Your task to perform on an android device: open a bookmark in the chrome app Image 0: 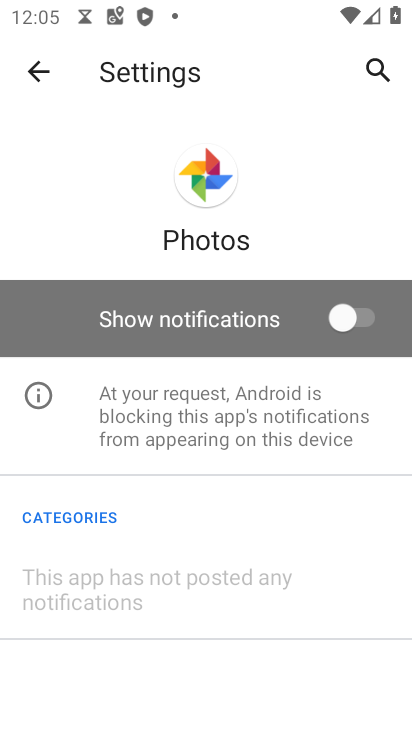
Step 0: press home button
Your task to perform on an android device: open a bookmark in the chrome app Image 1: 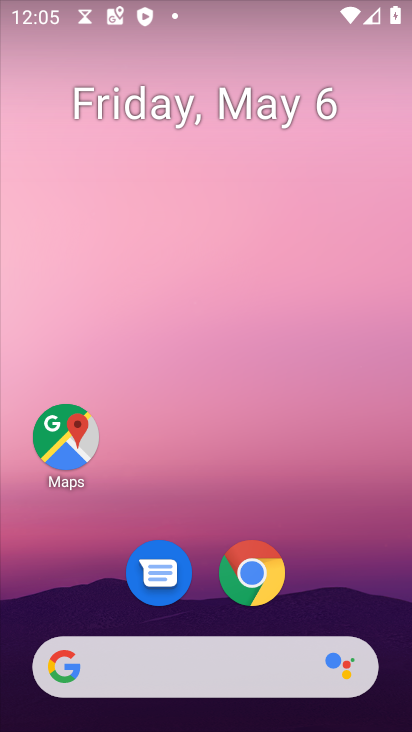
Step 1: drag from (328, 566) to (319, 293)
Your task to perform on an android device: open a bookmark in the chrome app Image 2: 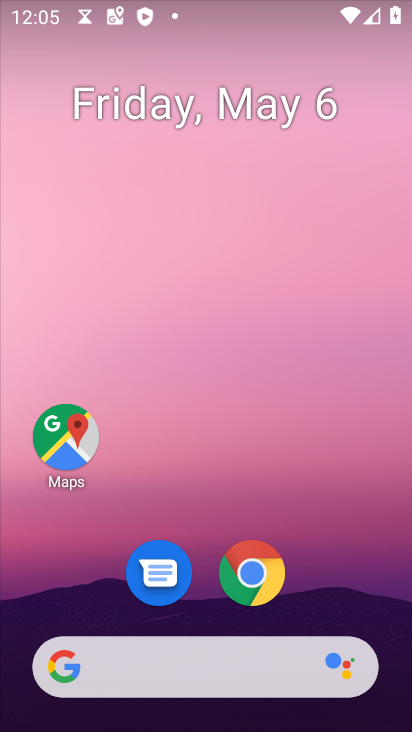
Step 2: drag from (334, 607) to (335, 301)
Your task to perform on an android device: open a bookmark in the chrome app Image 3: 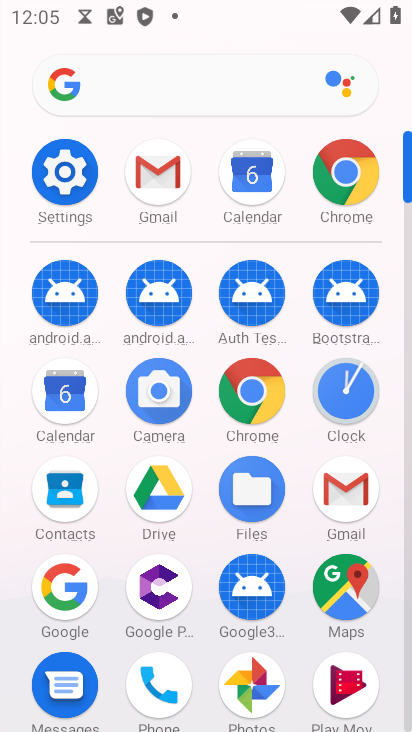
Step 3: click (239, 392)
Your task to perform on an android device: open a bookmark in the chrome app Image 4: 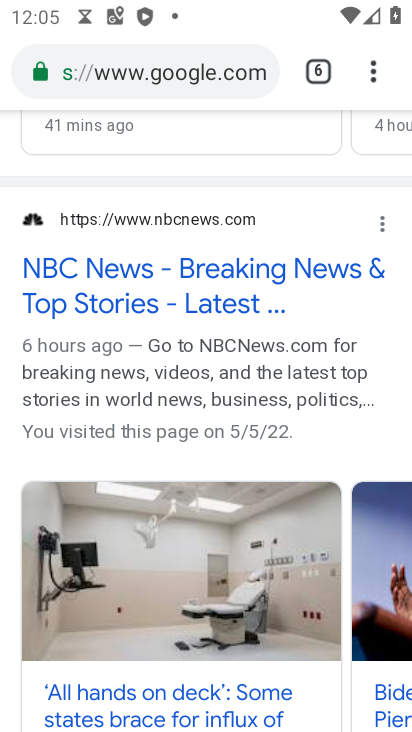
Step 4: click (360, 70)
Your task to perform on an android device: open a bookmark in the chrome app Image 5: 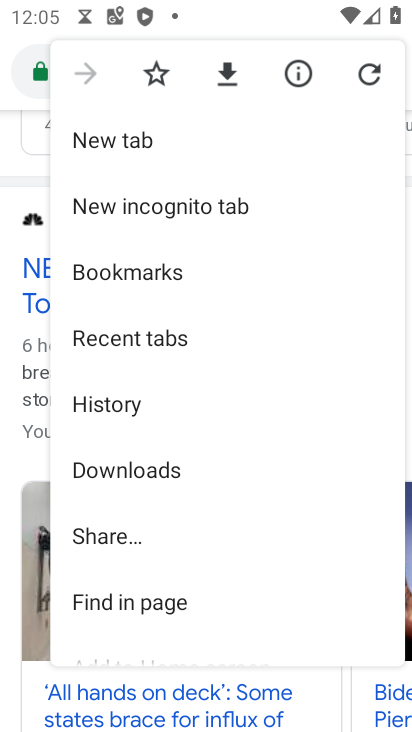
Step 5: click (157, 270)
Your task to perform on an android device: open a bookmark in the chrome app Image 6: 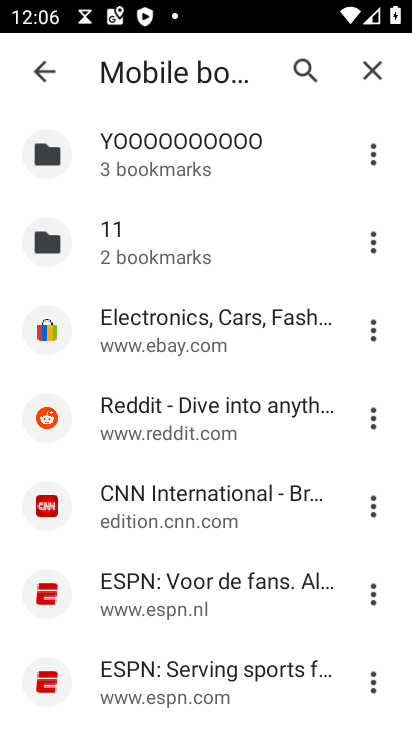
Step 6: task complete